Your task to perform on an android device: turn on airplane mode Image 0: 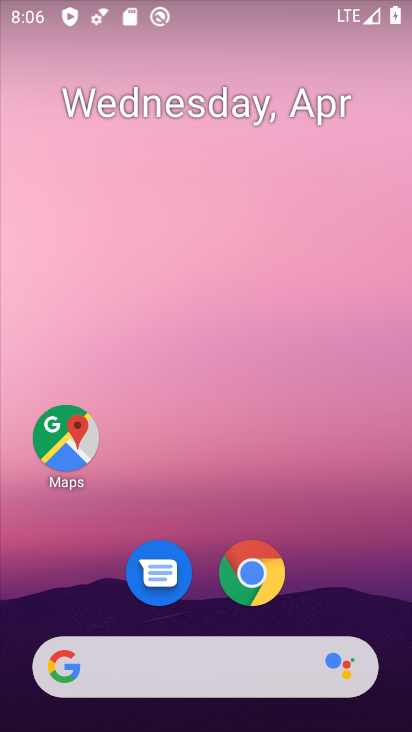
Step 0: drag from (16, 571) to (233, 252)
Your task to perform on an android device: turn on airplane mode Image 1: 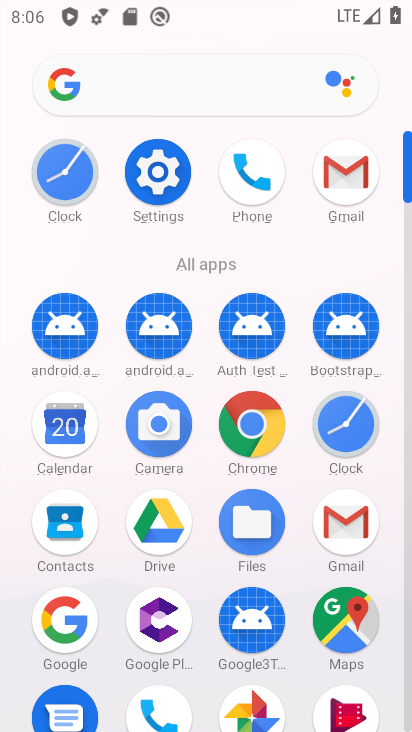
Step 1: click (176, 190)
Your task to perform on an android device: turn on airplane mode Image 2: 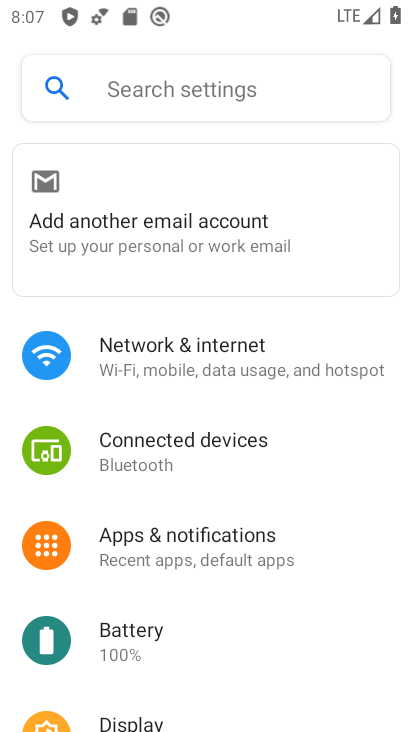
Step 2: drag from (169, 672) to (208, 405)
Your task to perform on an android device: turn on airplane mode Image 3: 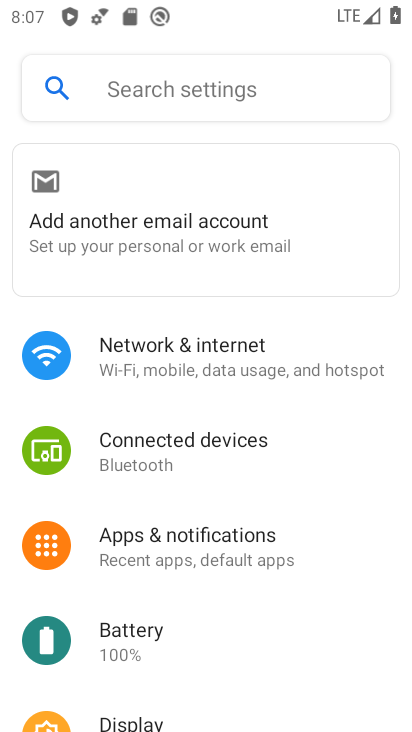
Step 3: drag from (93, 700) to (177, 408)
Your task to perform on an android device: turn on airplane mode Image 4: 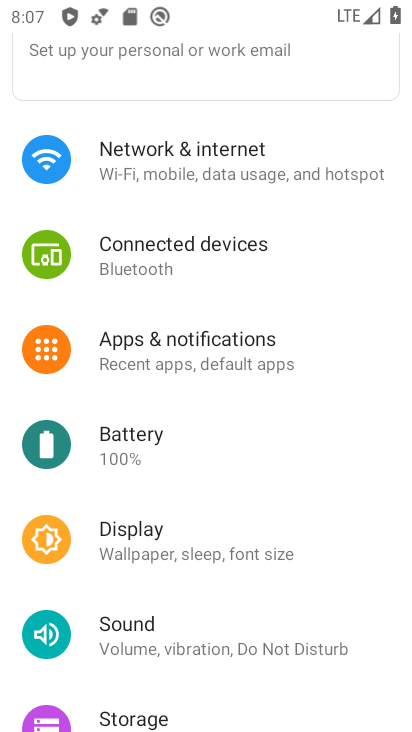
Step 4: click (151, 171)
Your task to perform on an android device: turn on airplane mode Image 5: 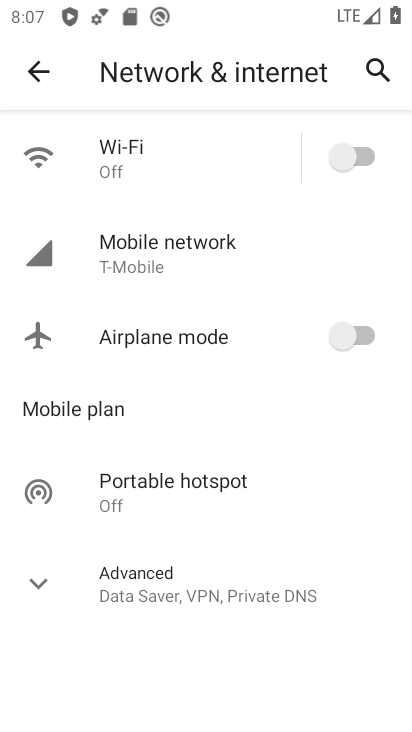
Step 5: click (339, 343)
Your task to perform on an android device: turn on airplane mode Image 6: 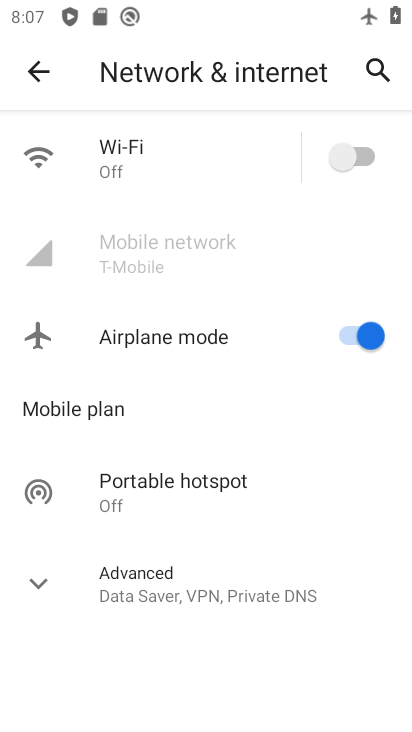
Step 6: task complete